Your task to perform on an android device: Open calendar and show me the second week of next month Image 0: 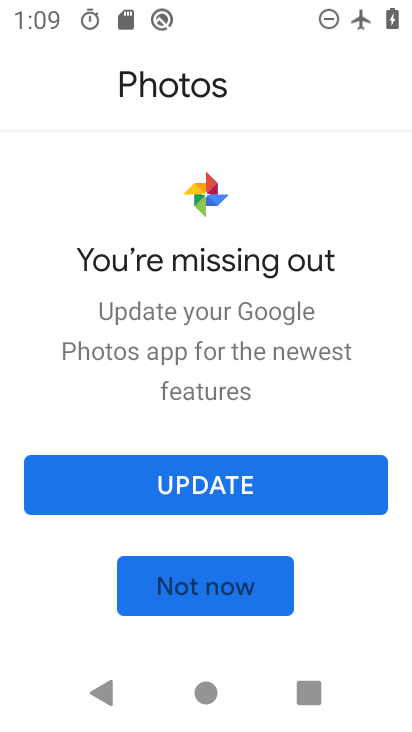
Step 0: press home button
Your task to perform on an android device: Open calendar and show me the second week of next month Image 1: 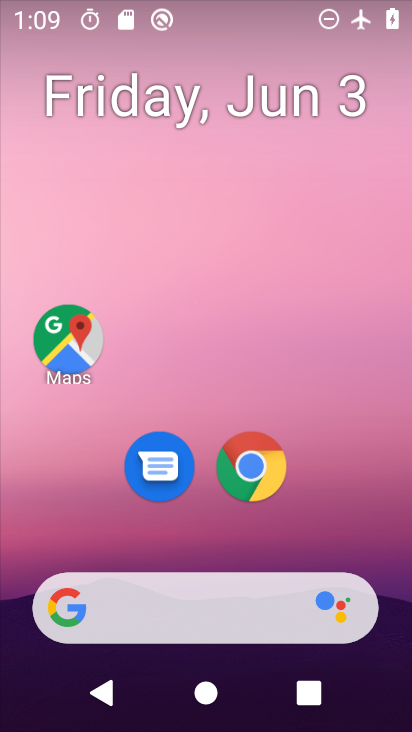
Step 1: drag from (218, 544) to (186, 154)
Your task to perform on an android device: Open calendar and show me the second week of next month Image 2: 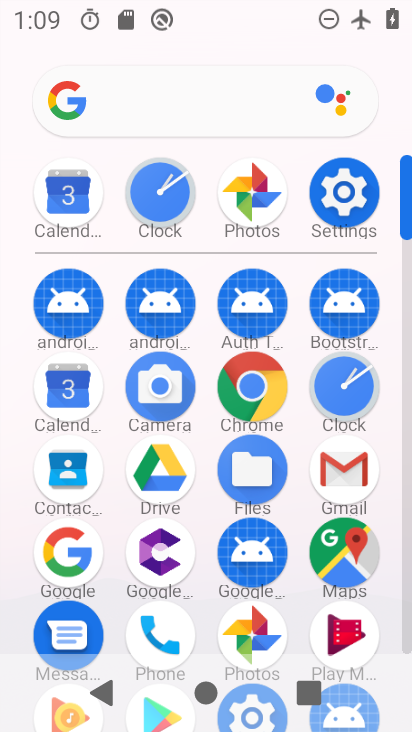
Step 2: click (65, 393)
Your task to perform on an android device: Open calendar and show me the second week of next month Image 3: 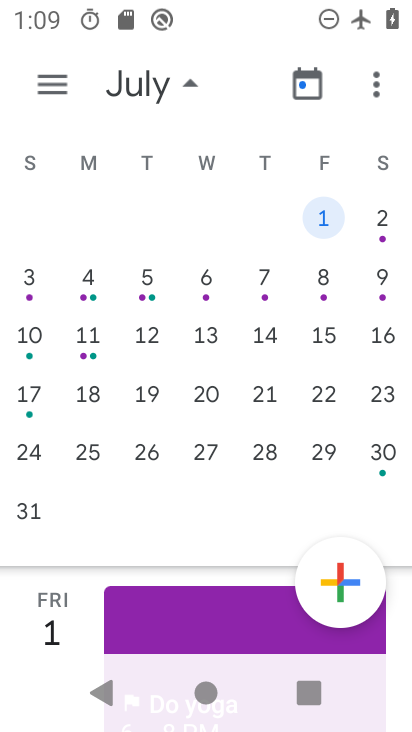
Step 3: click (29, 275)
Your task to perform on an android device: Open calendar and show me the second week of next month Image 4: 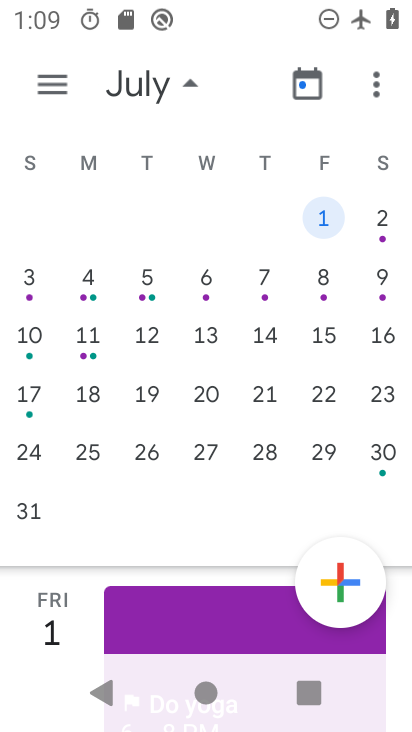
Step 4: click (29, 274)
Your task to perform on an android device: Open calendar and show me the second week of next month Image 5: 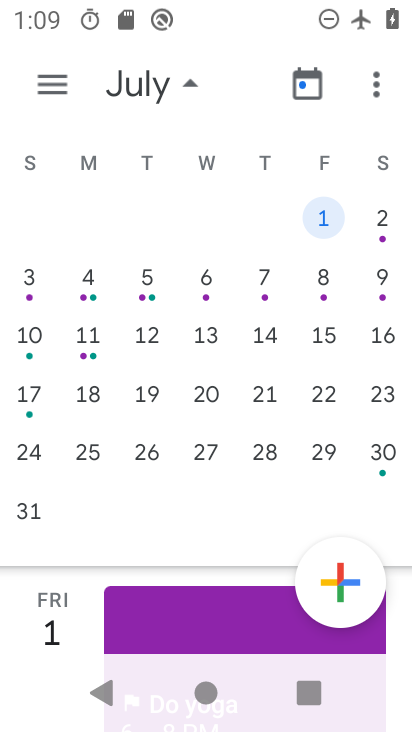
Step 5: click (29, 274)
Your task to perform on an android device: Open calendar and show me the second week of next month Image 6: 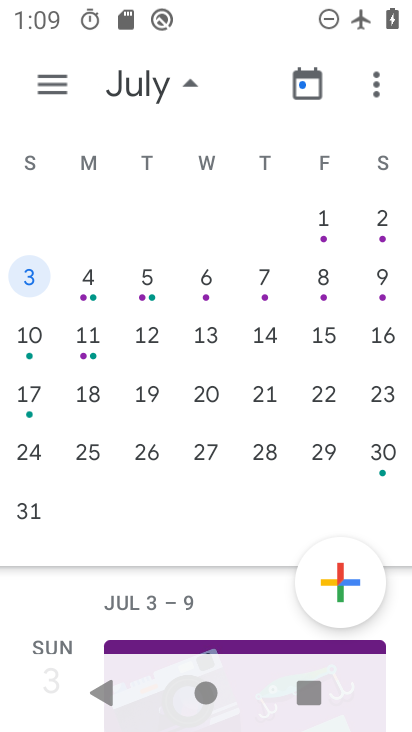
Step 6: click (29, 274)
Your task to perform on an android device: Open calendar and show me the second week of next month Image 7: 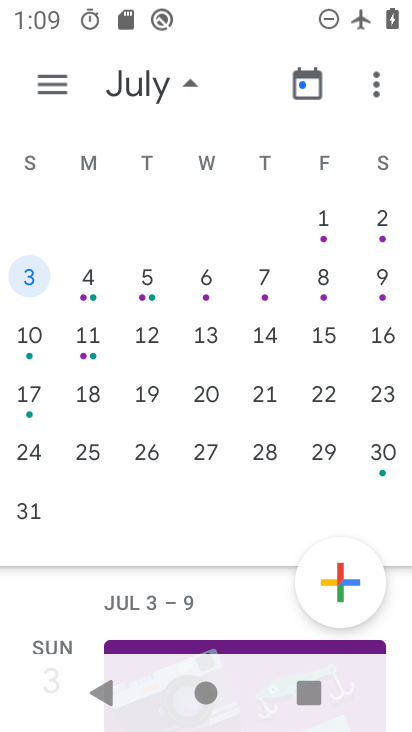
Step 7: task complete